Your task to perform on an android device: Go to ESPN.com Image 0: 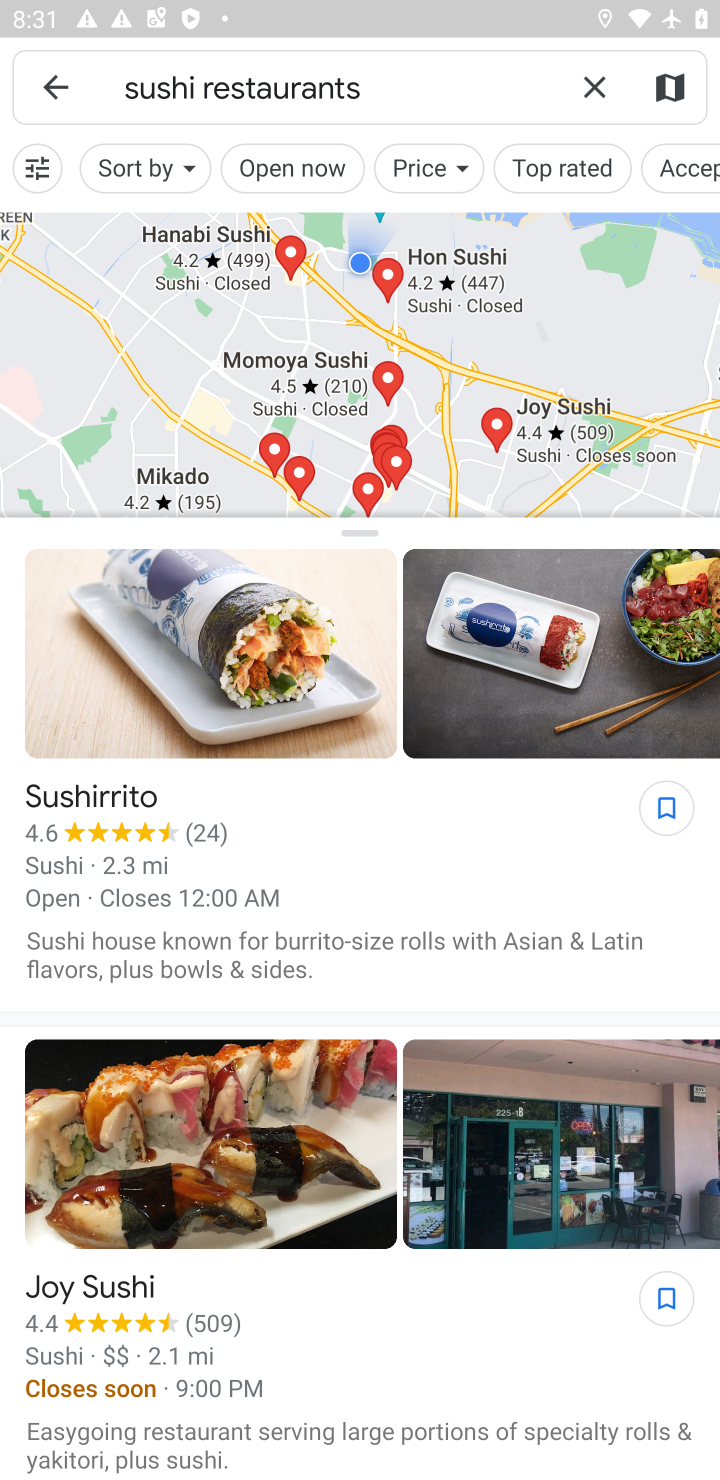
Step 0: press home button
Your task to perform on an android device: Go to ESPN.com Image 1: 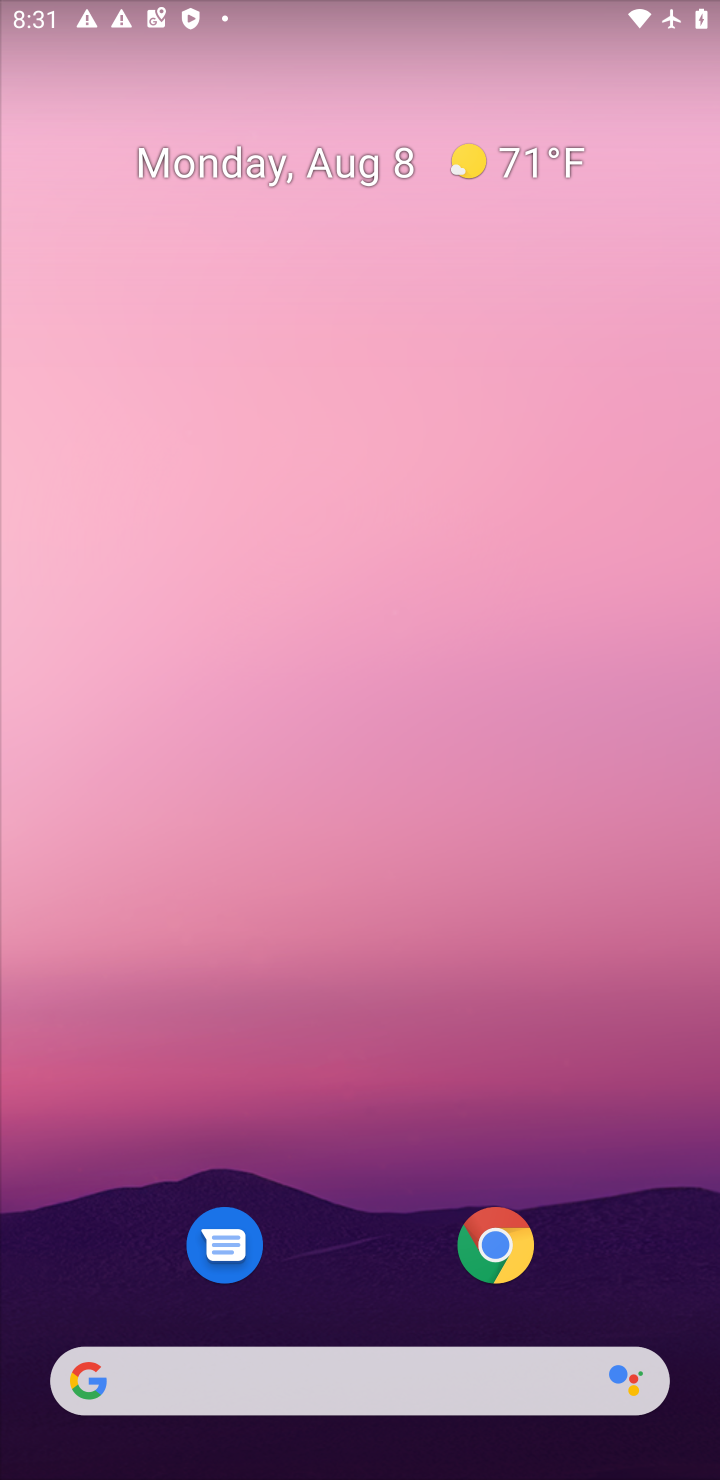
Step 1: drag from (302, 982) to (308, 30)
Your task to perform on an android device: Go to ESPN.com Image 2: 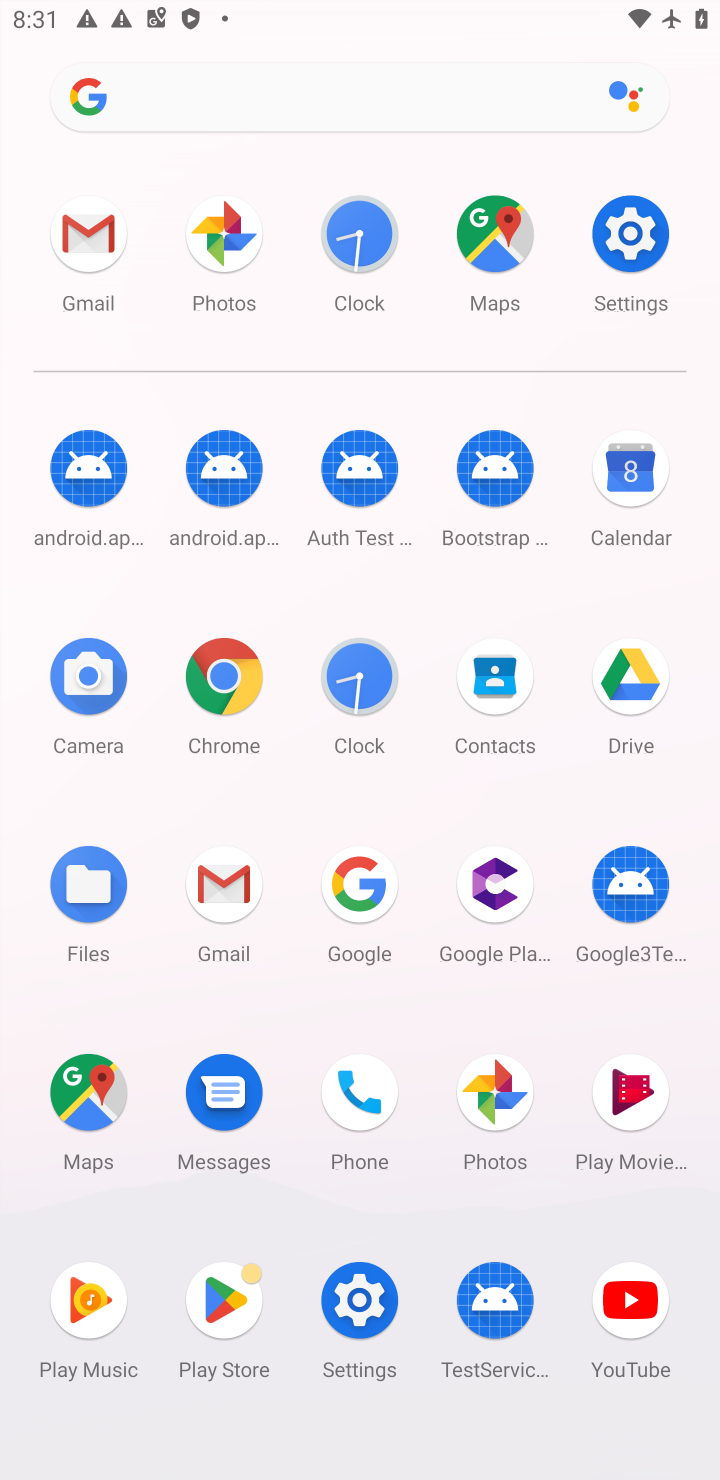
Step 2: click (215, 713)
Your task to perform on an android device: Go to ESPN.com Image 3: 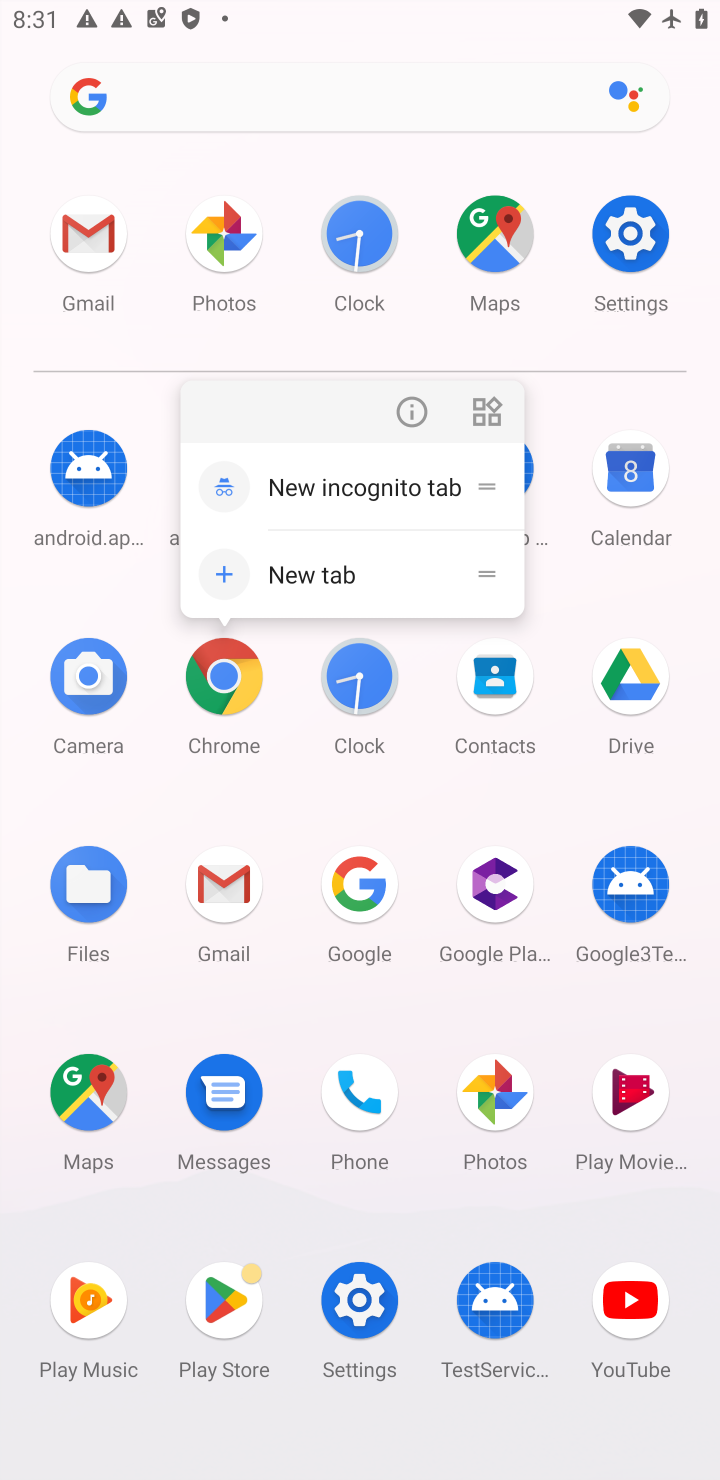
Step 3: click (214, 713)
Your task to perform on an android device: Go to ESPN.com Image 4: 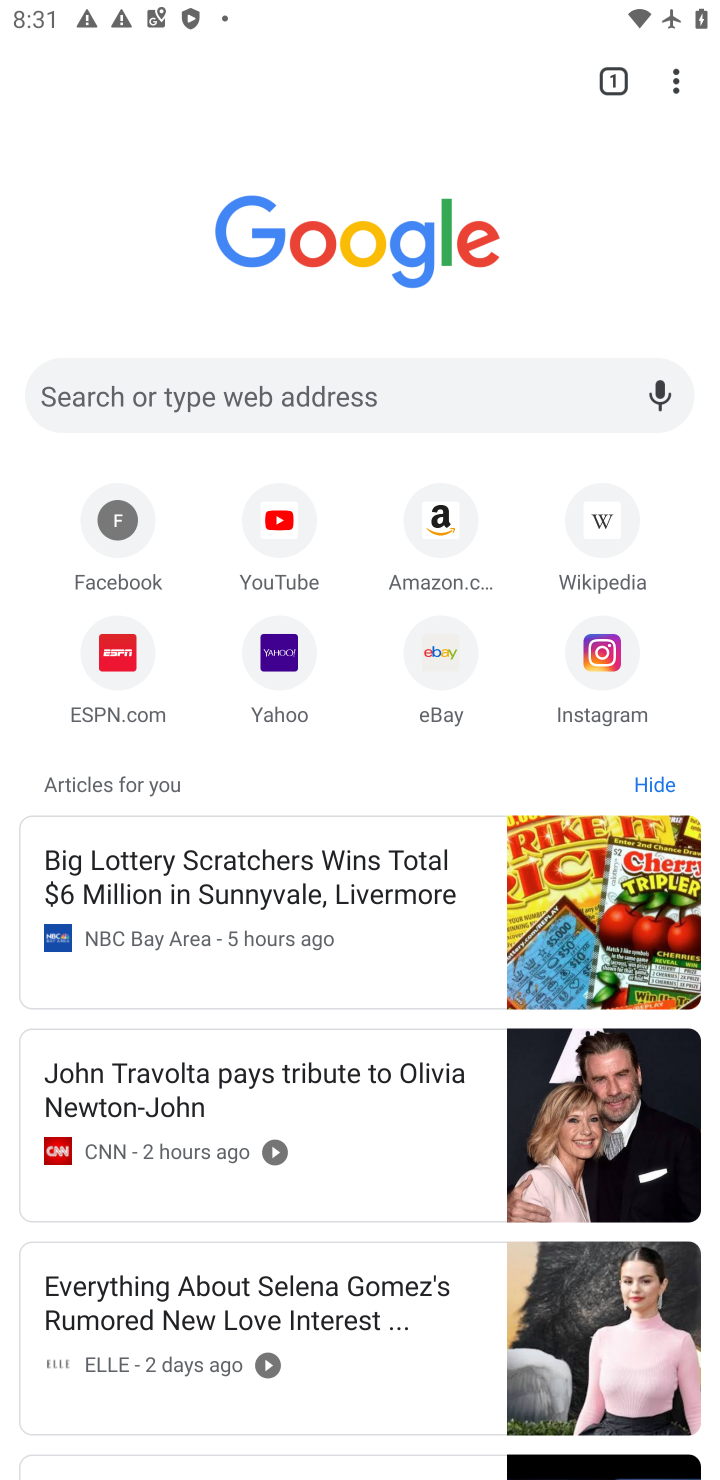
Step 4: click (116, 677)
Your task to perform on an android device: Go to ESPN.com Image 5: 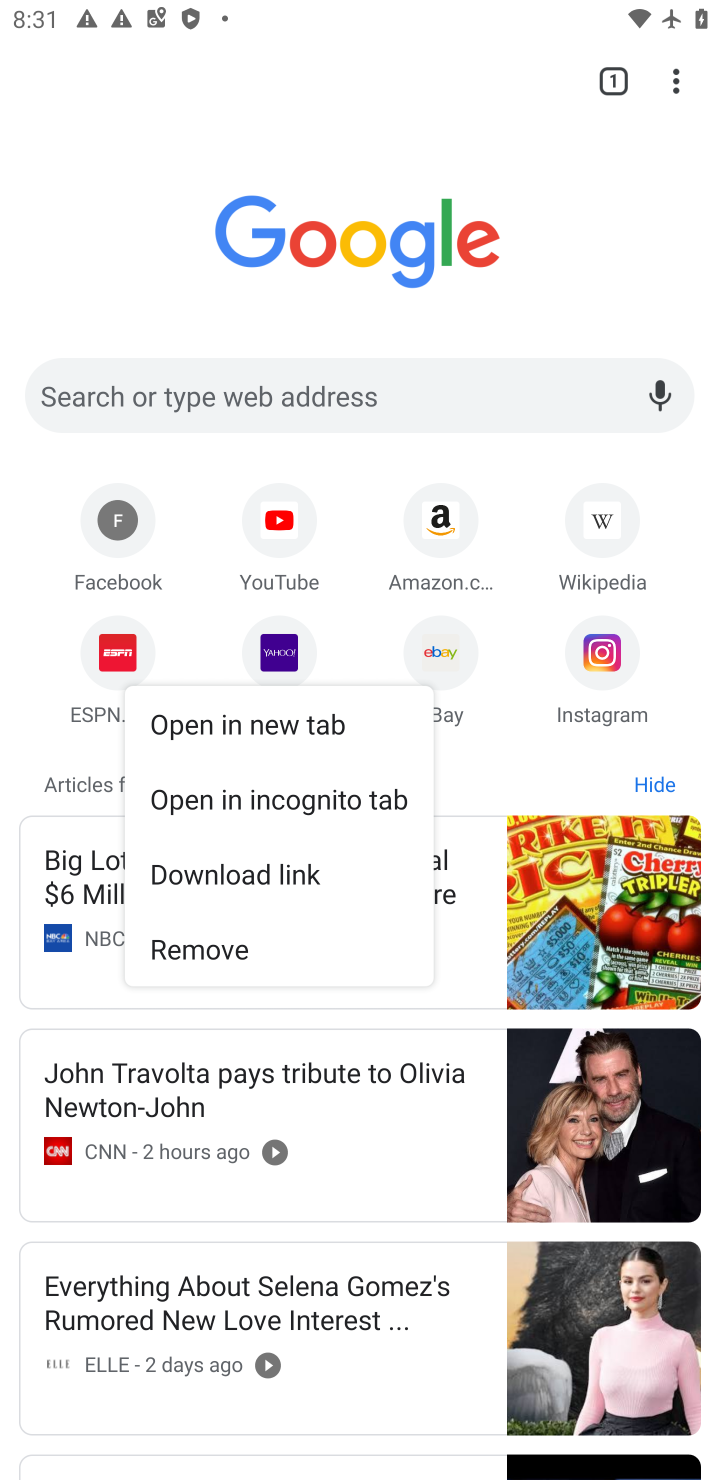
Step 5: click (88, 637)
Your task to perform on an android device: Go to ESPN.com Image 6: 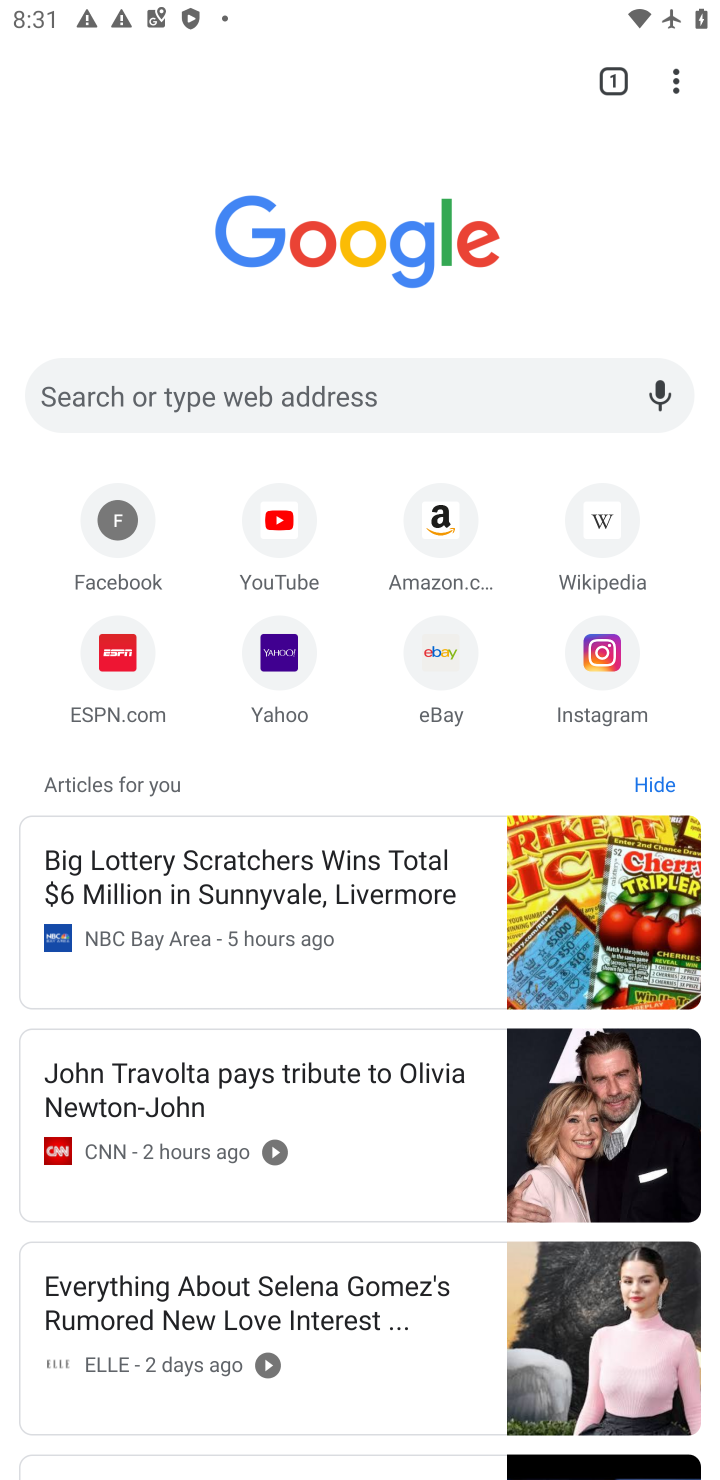
Step 6: click (89, 651)
Your task to perform on an android device: Go to ESPN.com Image 7: 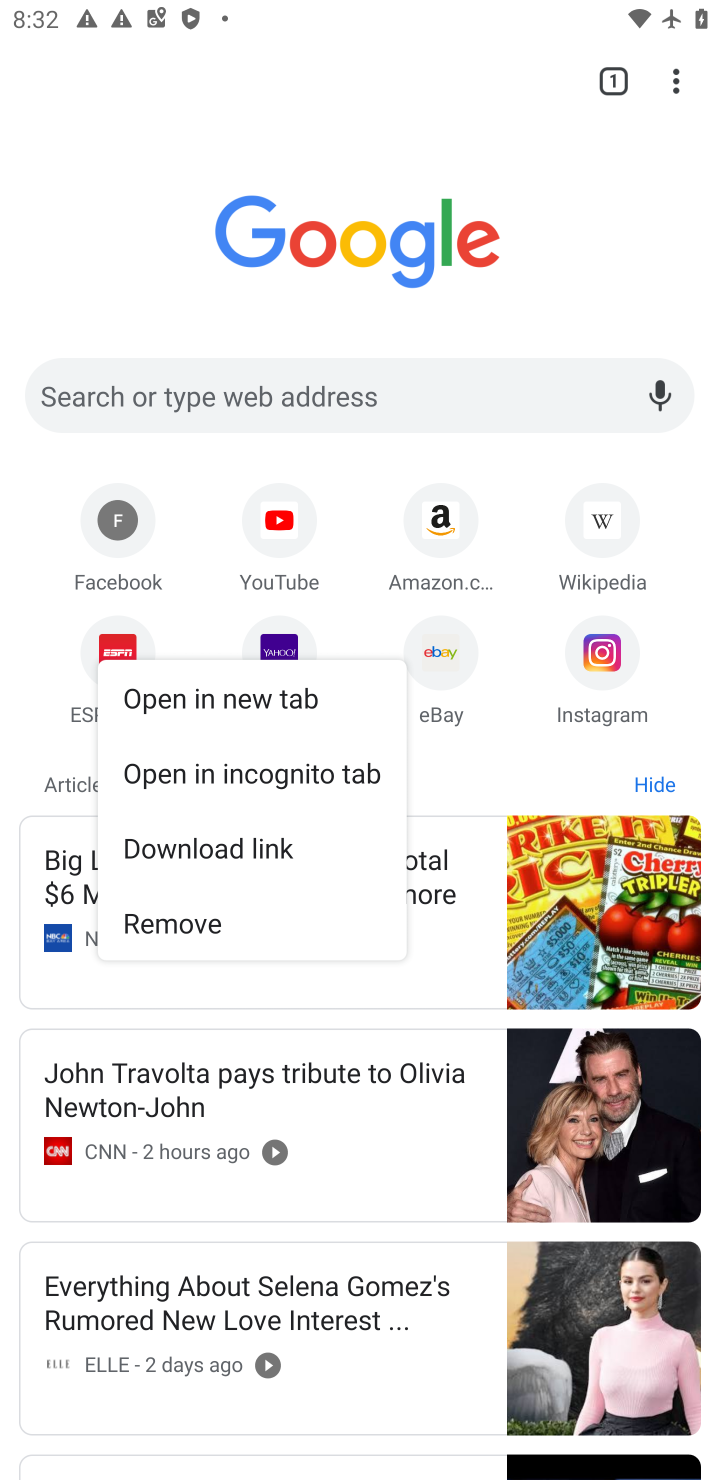
Step 7: click (77, 704)
Your task to perform on an android device: Go to ESPN.com Image 8: 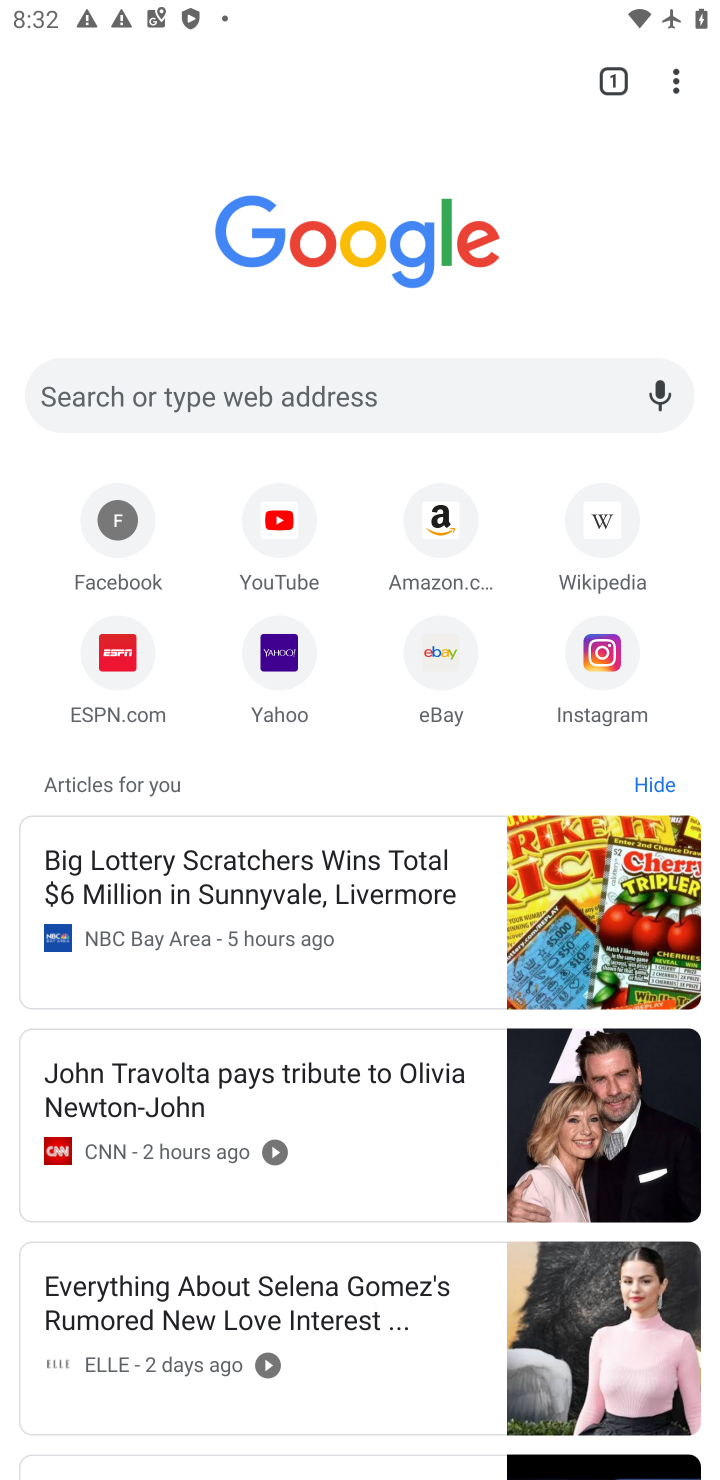
Step 8: click (75, 701)
Your task to perform on an android device: Go to ESPN.com Image 9: 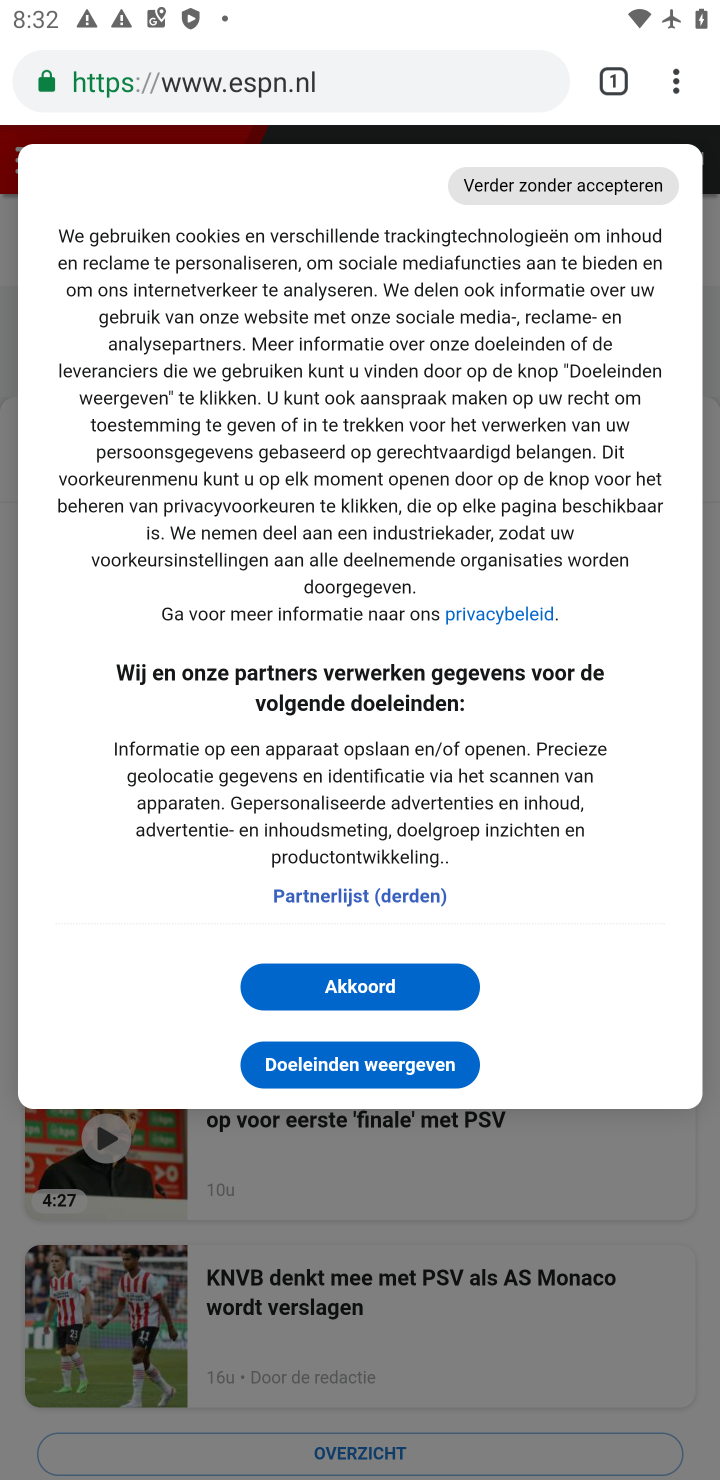
Step 9: task complete